Your task to perform on an android device: Go to privacy settings Image 0: 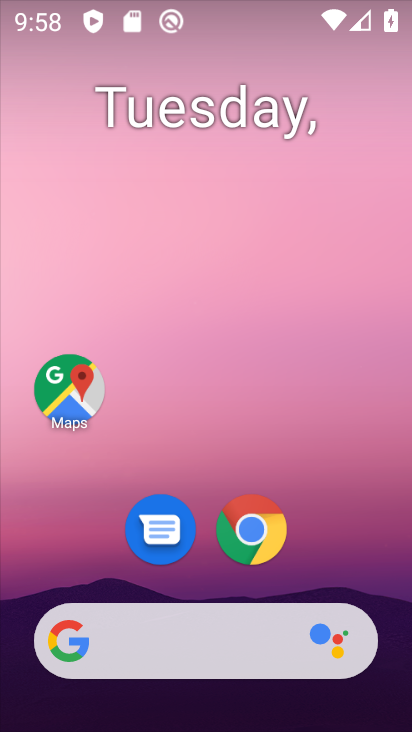
Step 0: click (242, 543)
Your task to perform on an android device: Go to privacy settings Image 1: 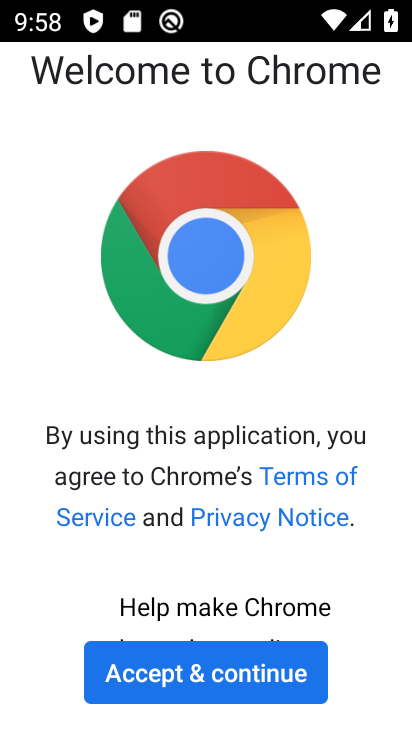
Step 1: click (278, 686)
Your task to perform on an android device: Go to privacy settings Image 2: 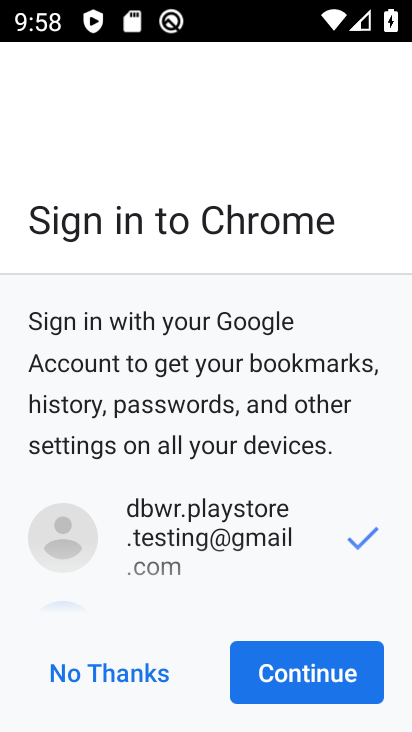
Step 2: click (281, 690)
Your task to perform on an android device: Go to privacy settings Image 3: 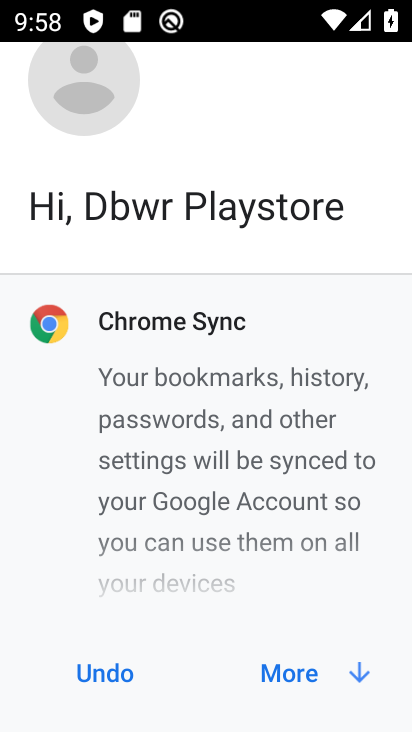
Step 3: click (281, 690)
Your task to perform on an android device: Go to privacy settings Image 4: 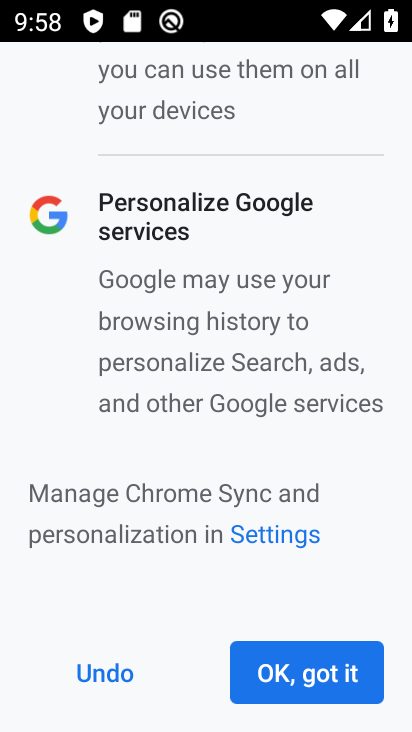
Step 4: click (281, 690)
Your task to perform on an android device: Go to privacy settings Image 5: 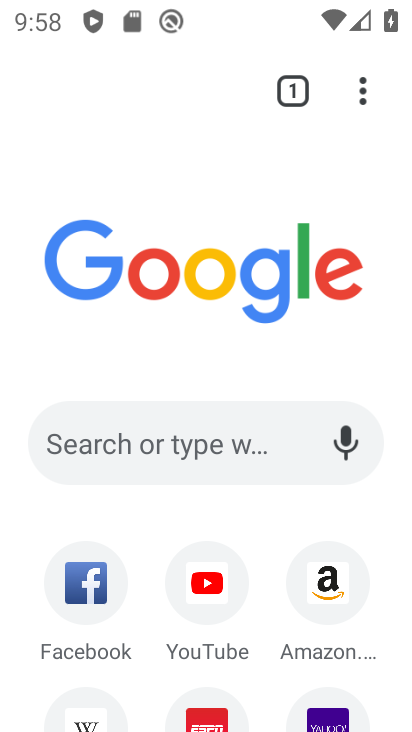
Step 5: drag from (376, 91) to (260, 581)
Your task to perform on an android device: Go to privacy settings Image 6: 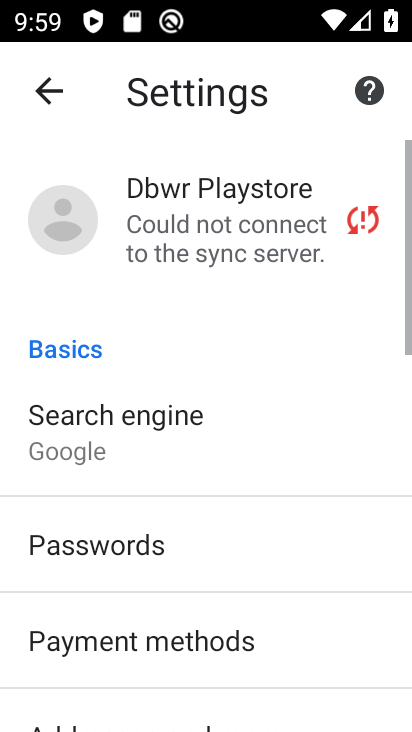
Step 6: drag from (206, 664) to (347, 182)
Your task to perform on an android device: Go to privacy settings Image 7: 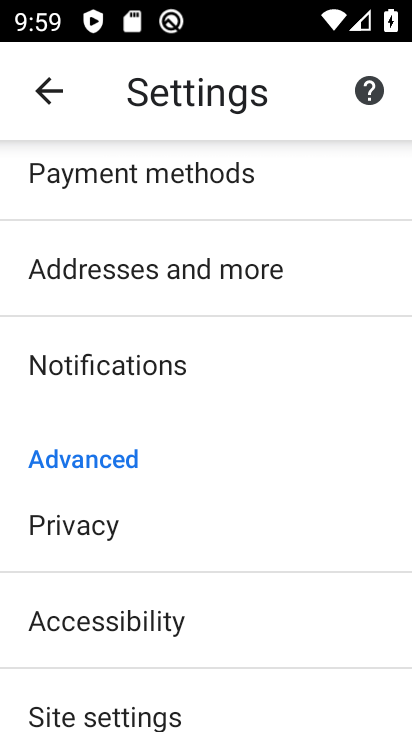
Step 7: click (133, 527)
Your task to perform on an android device: Go to privacy settings Image 8: 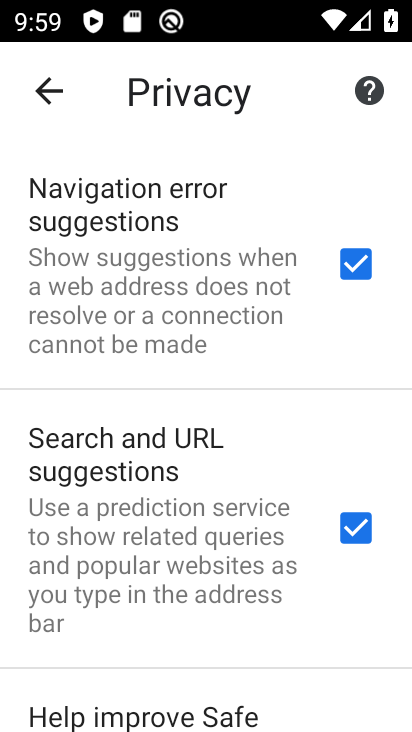
Step 8: task complete